Your task to perform on an android device: open chrome privacy settings Image 0: 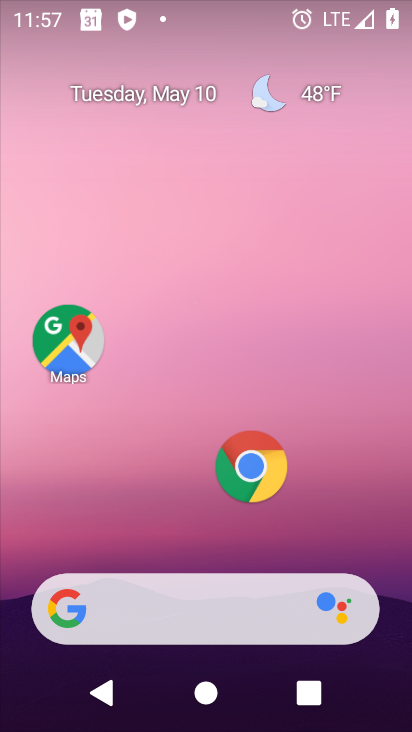
Step 0: click (258, 453)
Your task to perform on an android device: open chrome privacy settings Image 1: 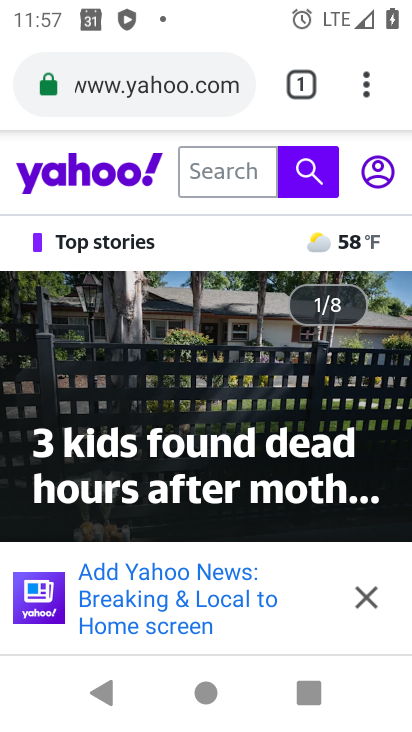
Step 1: drag from (367, 79) to (112, 507)
Your task to perform on an android device: open chrome privacy settings Image 2: 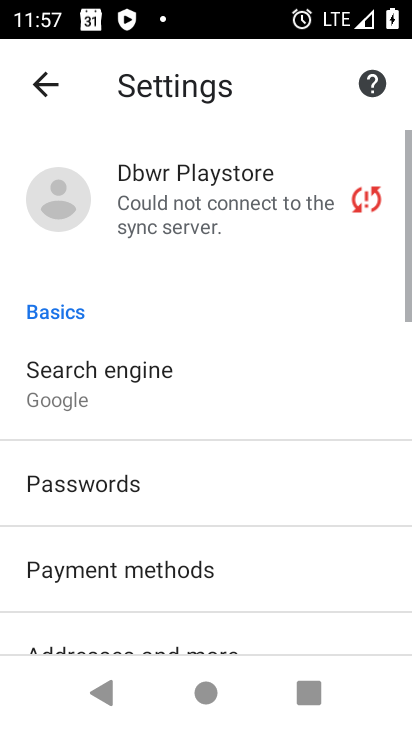
Step 2: drag from (159, 597) to (301, 78)
Your task to perform on an android device: open chrome privacy settings Image 3: 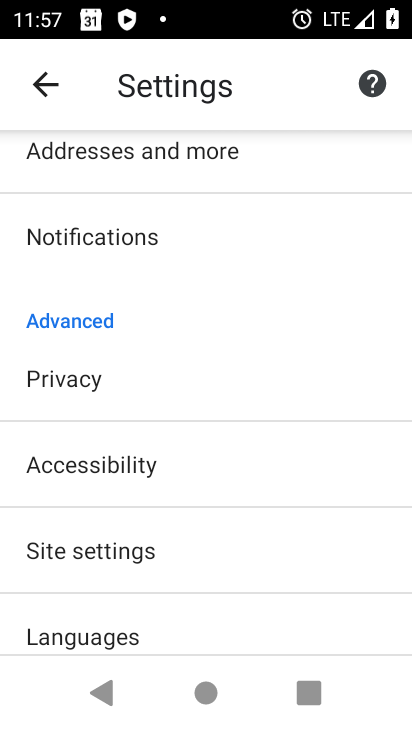
Step 3: click (148, 380)
Your task to perform on an android device: open chrome privacy settings Image 4: 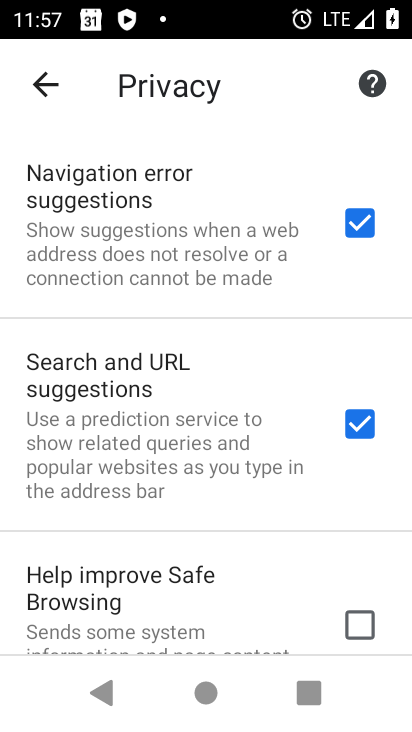
Step 4: task complete